Your task to perform on an android device: snooze an email in the gmail app Image 0: 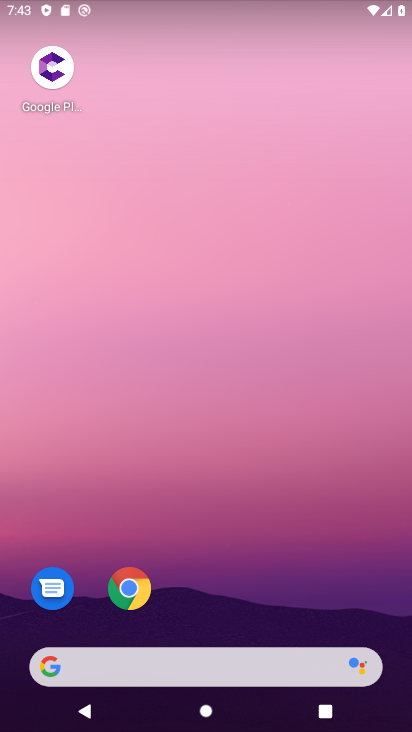
Step 0: drag from (217, 566) to (241, 248)
Your task to perform on an android device: snooze an email in the gmail app Image 1: 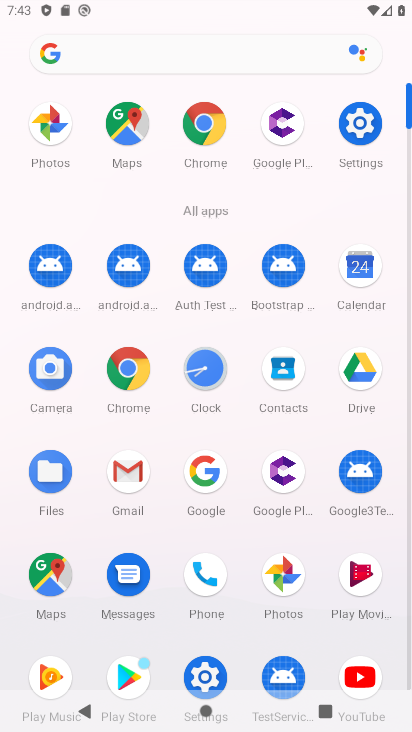
Step 1: click (137, 479)
Your task to perform on an android device: snooze an email in the gmail app Image 2: 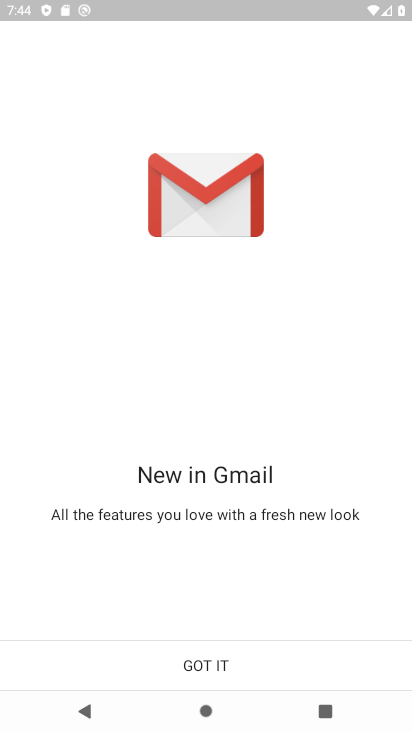
Step 2: click (211, 665)
Your task to perform on an android device: snooze an email in the gmail app Image 3: 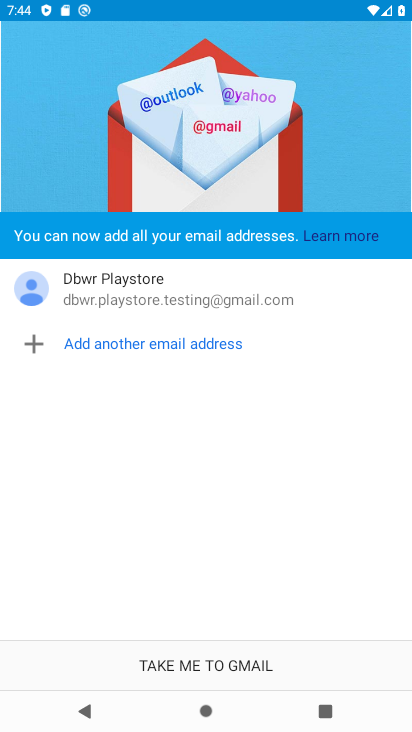
Step 3: click (211, 665)
Your task to perform on an android device: snooze an email in the gmail app Image 4: 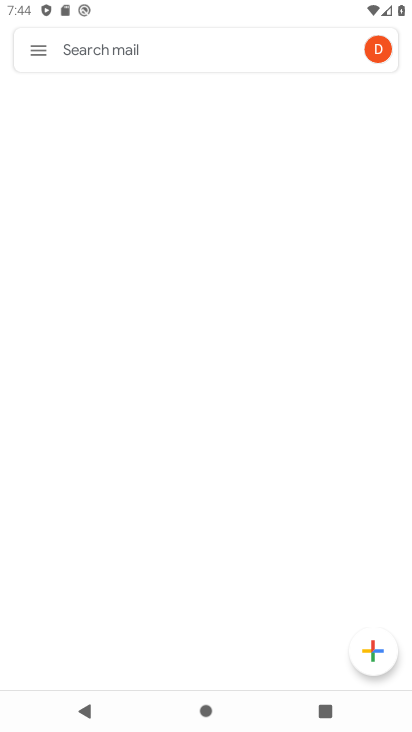
Step 4: click (40, 47)
Your task to perform on an android device: snooze an email in the gmail app Image 5: 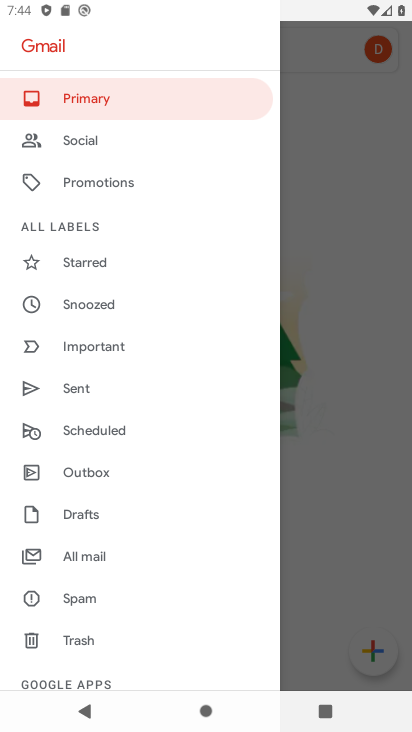
Step 5: click (111, 546)
Your task to perform on an android device: snooze an email in the gmail app Image 6: 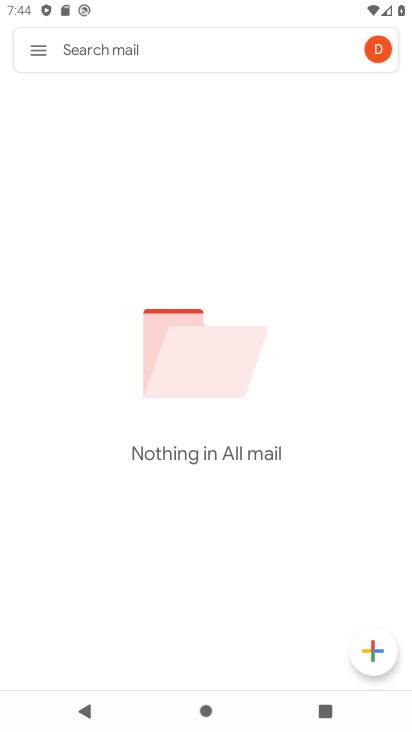
Step 6: task complete